Your task to perform on an android device: choose inbox layout in the gmail app Image 0: 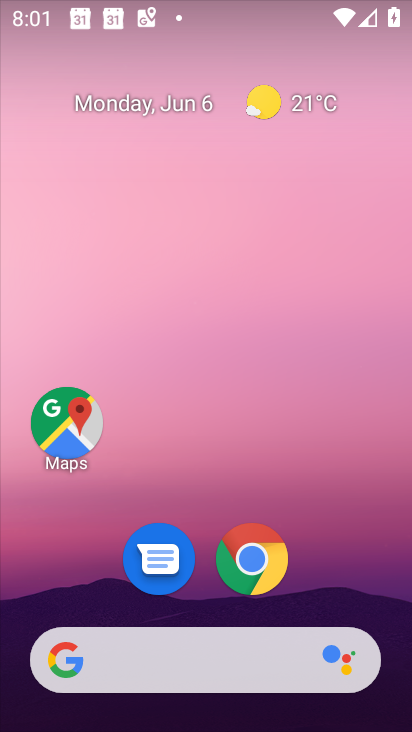
Step 0: drag from (213, 705) to (213, 117)
Your task to perform on an android device: choose inbox layout in the gmail app Image 1: 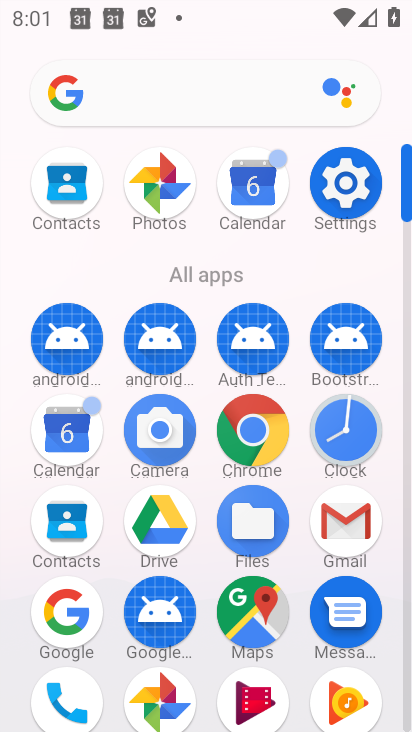
Step 1: click (359, 522)
Your task to perform on an android device: choose inbox layout in the gmail app Image 2: 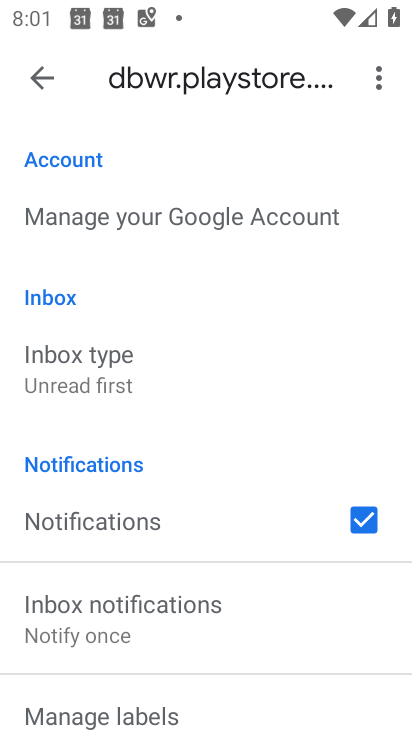
Step 2: click (69, 373)
Your task to perform on an android device: choose inbox layout in the gmail app Image 3: 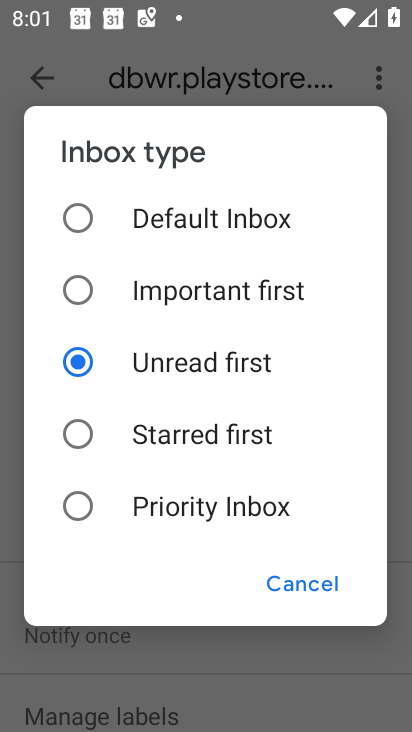
Step 3: click (80, 212)
Your task to perform on an android device: choose inbox layout in the gmail app Image 4: 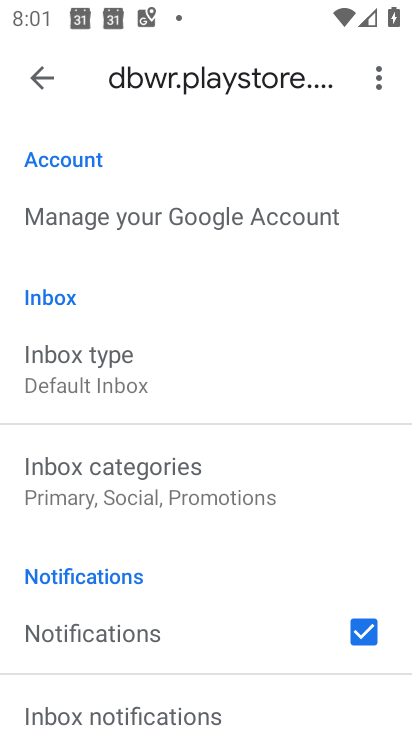
Step 4: task complete